Your task to perform on an android device: Open calendar and show me the second week of next month Image 0: 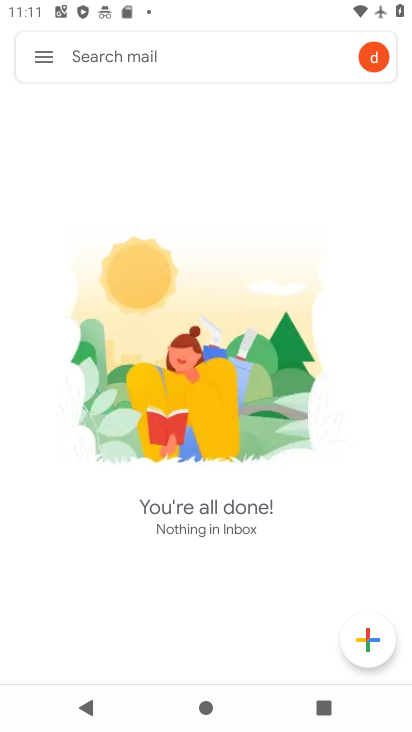
Step 0: press home button
Your task to perform on an android device: Open calendar and show me the second week of next month Image 1: 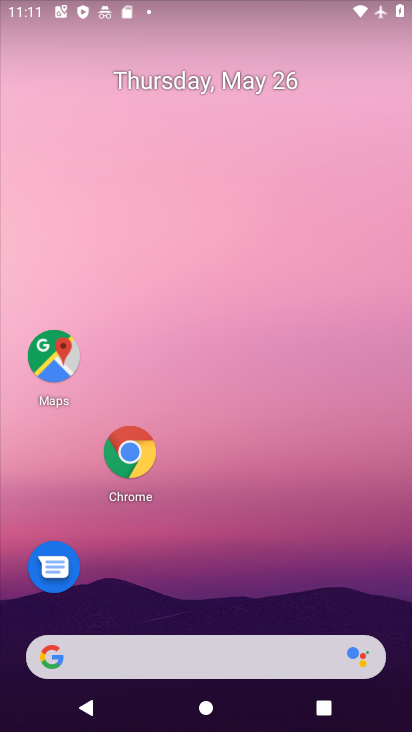
Step 1: drag from (214, 653) to (347, 88)
Your task to perform on an android device: Open calendar and show me the second week of next month Image 2: 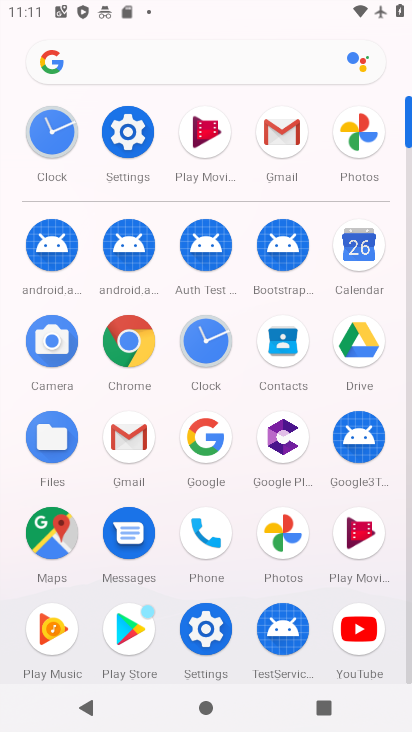
Step 2: click (372, 258)
Your task to perform on an android device: Open calendar and show me the second week of next month Image 3: 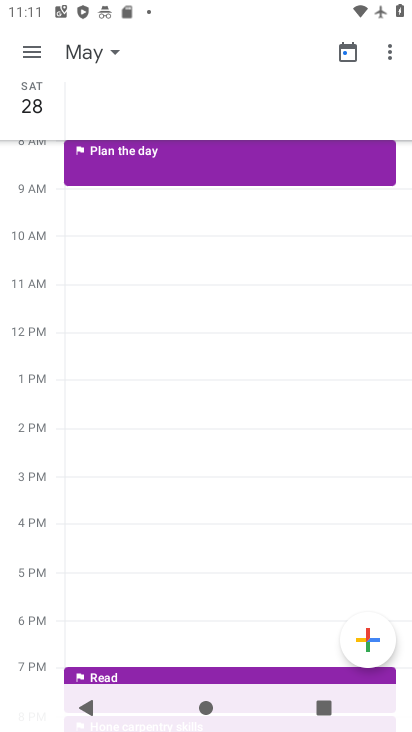
Step 3: click (90, 45)
Your task to perform on an android device: Open calendar and show me the second week of next month Image 4: 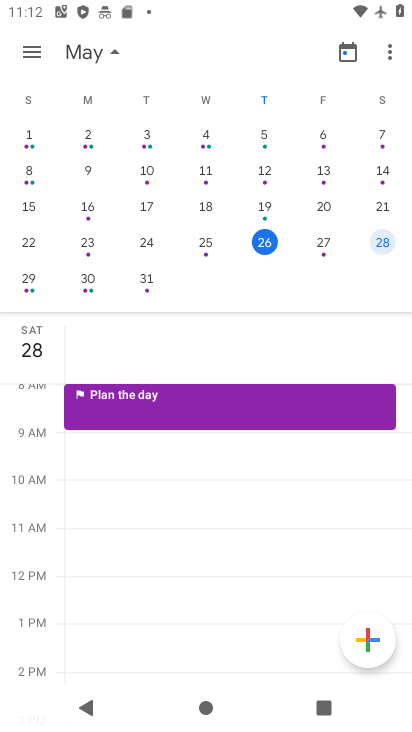
Step 4: drag from (375, 181) to (13, 175)
Your task to perform on an android device: Open calendar and show me the second week of next month Image 5: 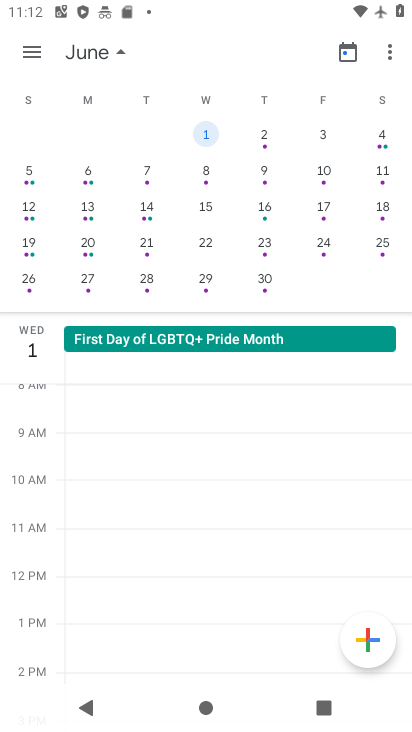
Step 5: click (30, 166)
Your task to perform on an android device: Open calendar and show me the second week of next month Image 6: 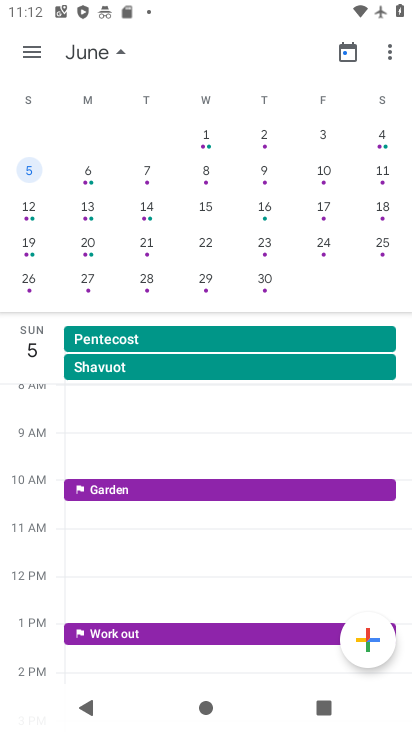
Step 6: click (22, 47)
Your task to perform on an android device: Open calendar and show me the second week of next month Image 7: 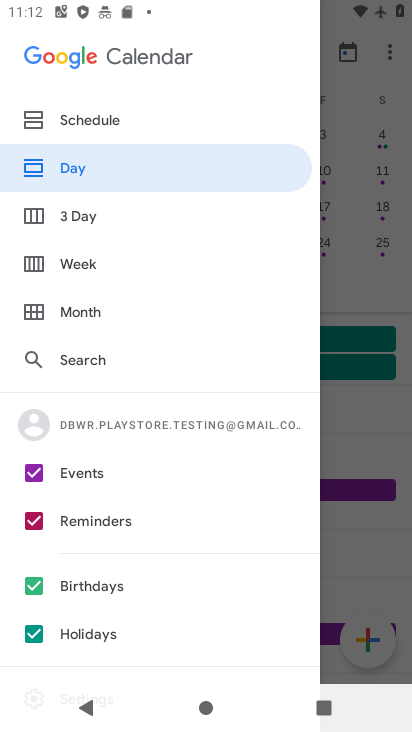
Step 7: click (85, 263)
Your task to perform on an android device: Open calendar and show me the second week of next month Image 8: 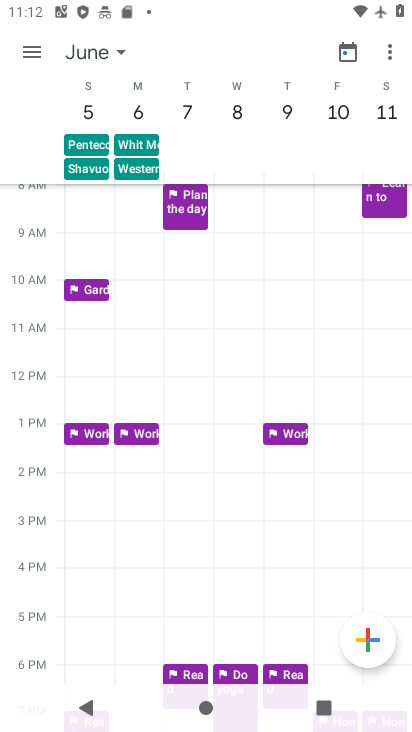
Step 8: task complete